Your task to perform on an android device: check the backup settings in the google photos Image 0: 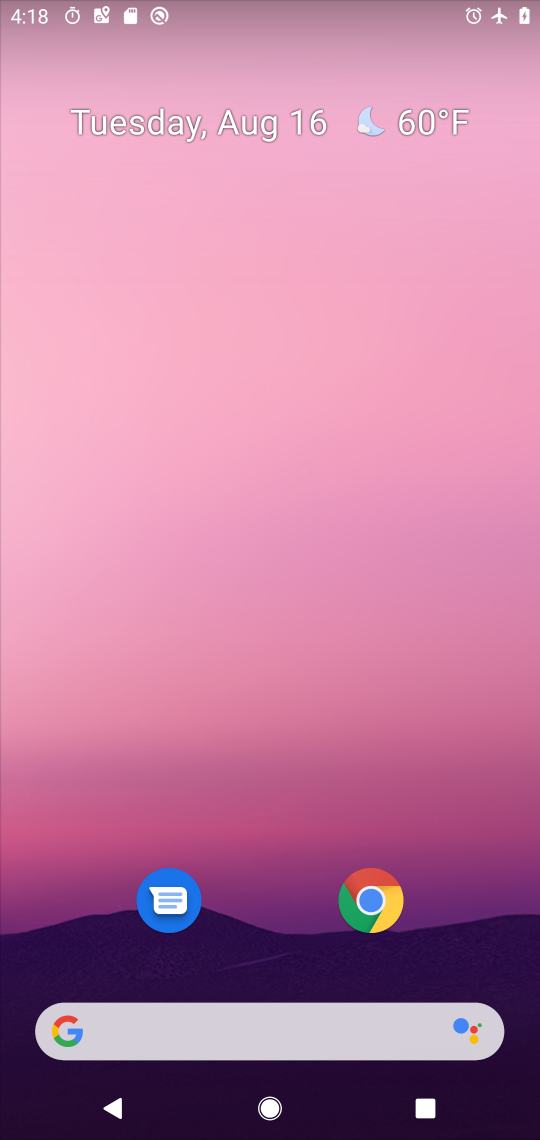
Step 0: drag from (282, 926) to (268, 78)
Your task to perform on an android device: check the backup settings in the google photos Image 1: 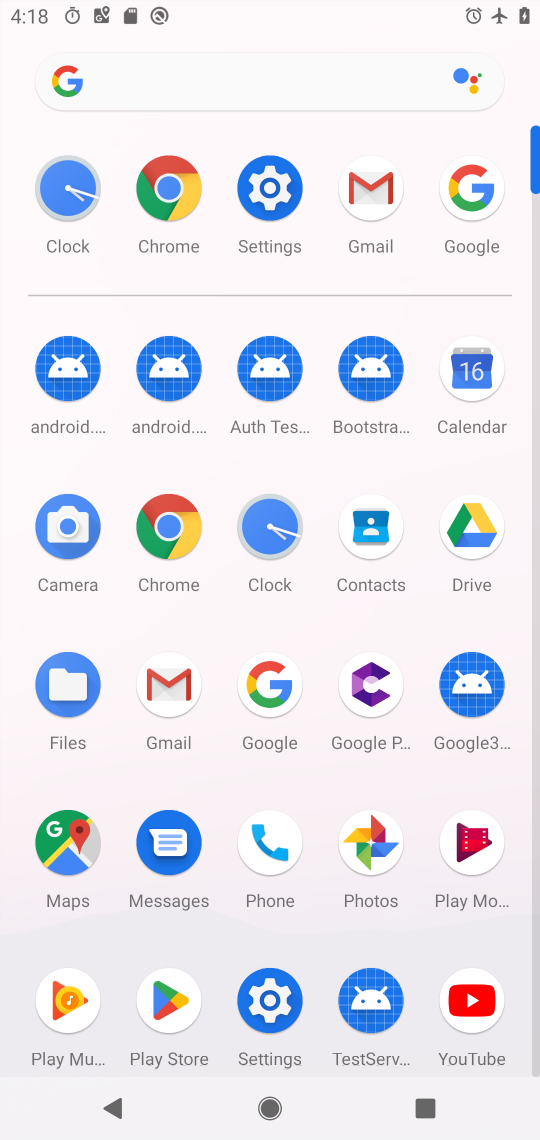
Step 1: click (361, 848)
Your task to perform on an android device: check the backup settings in the google photos Image 2: 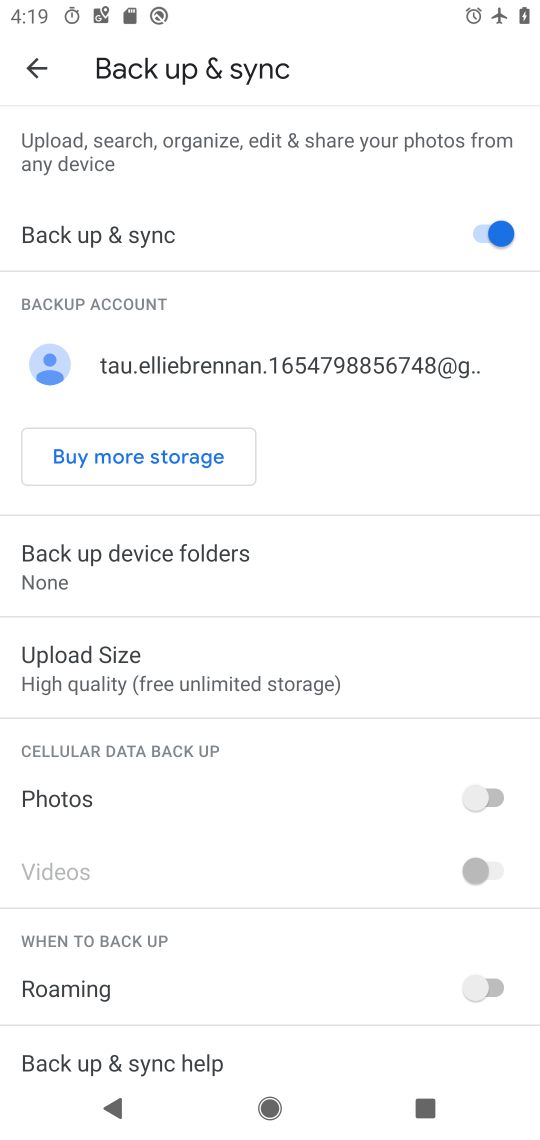
Step 2: task complete